Your task to perform on an android device: Show me recent news Image 0: 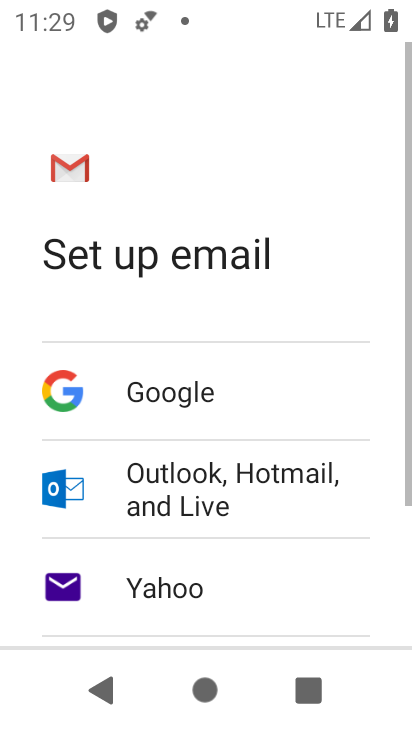
Step 0: press home button
Your task to perform on an android device: Show me recent news Image 1: 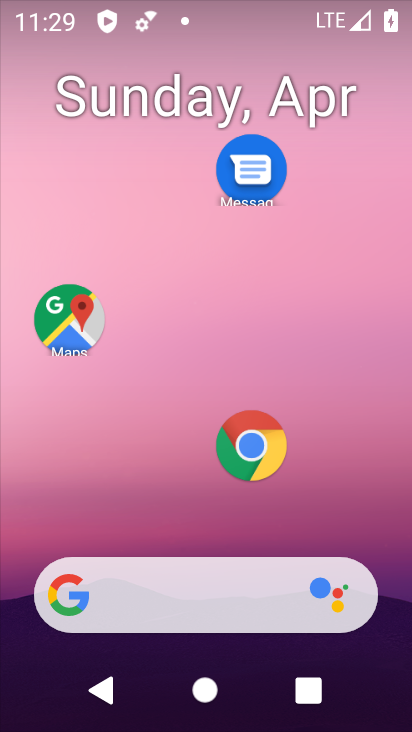
Step 1: task complete